Your task to perform on an android device: Open calendar and show me the second week of next month Image 0: 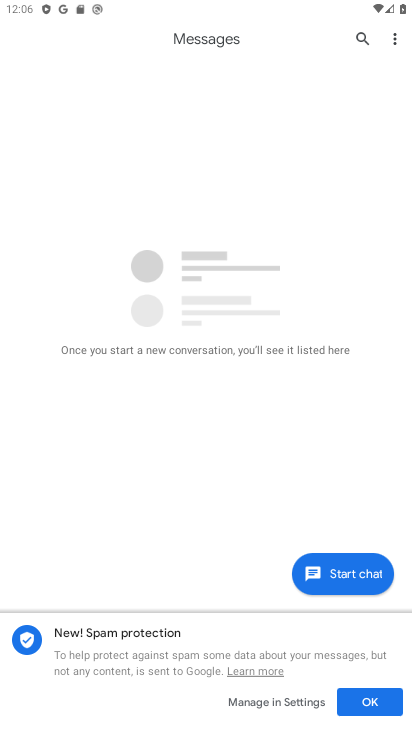
Step 0: drag from (183, 495) to (178, 243)
Your task to perform on an android device: Open calendar and show me the second week of next month Image 1: 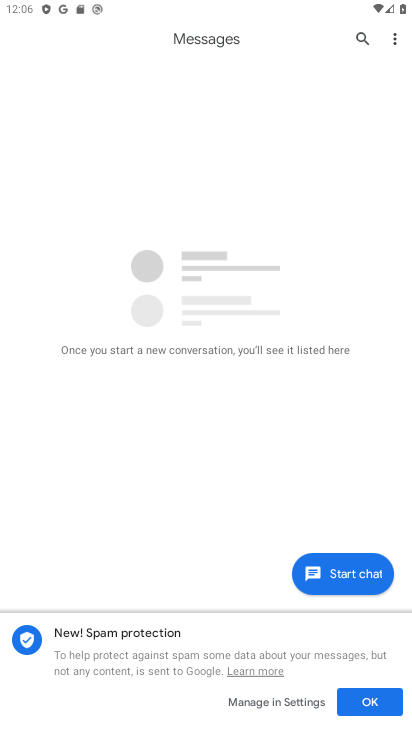
Step 1: press home button
Your task to perform on an android device: Open calendar and show me the second week of next month Image 2: 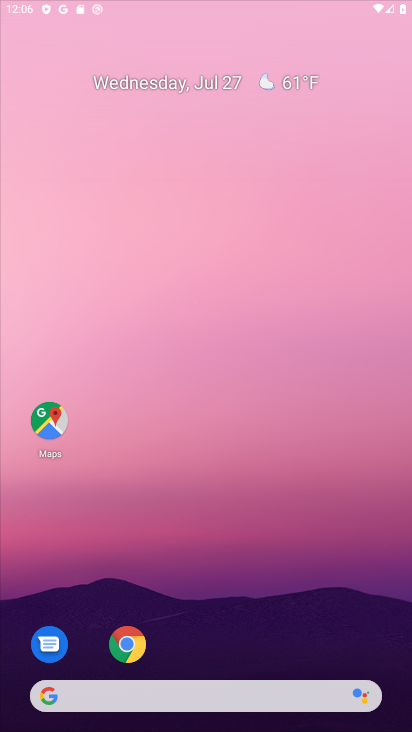
Step 2: click (184, 341)
Your task to perform on an android device: Open calendar and show me the second week of next month Image 3: 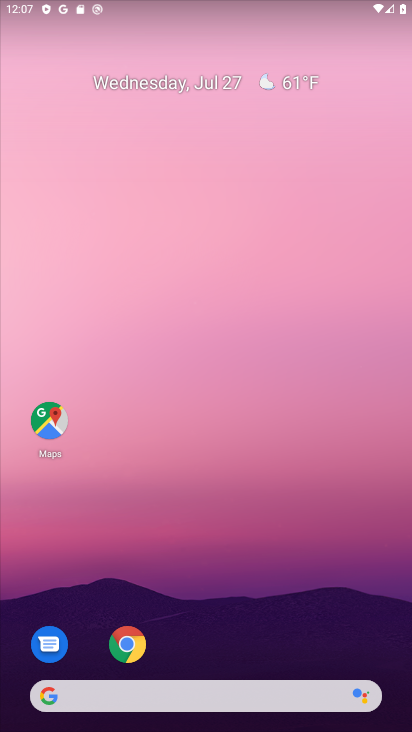
Step 3: drag from (193, 509) to (283, 53)
Your task to perform on an android device: Open calendar and show me the second week of next month Image 4: 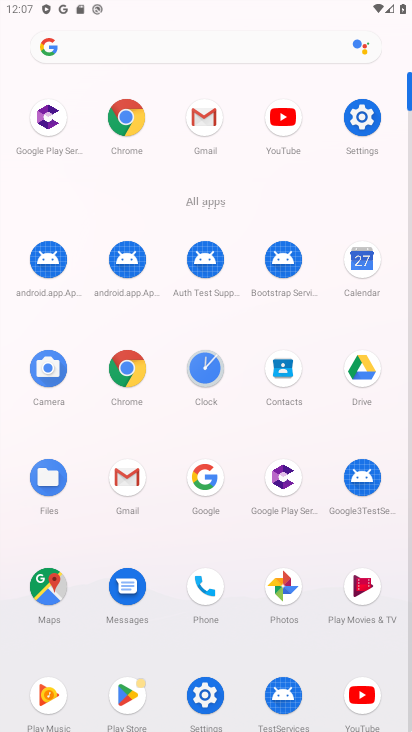
Step 4: click (363, 256)
Your task to perform on an android device: Open calendar and show me the second week of next month Image 5: 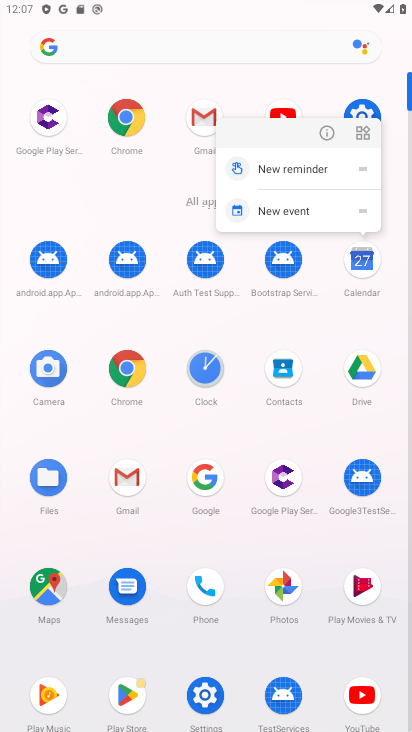
Step 5: click (323, 129)
Your task to perform on an android device: Open calendar and show me the second week of next month Image 6: 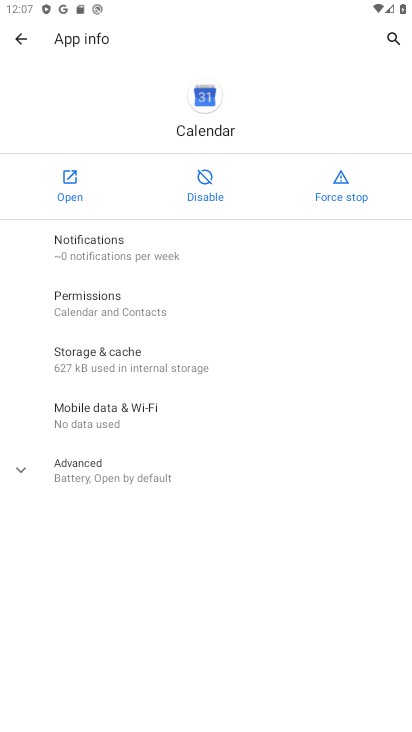
Step 6: click (67, 177)
Your task to perform on an android device: Open calendar and show me the second week of next month Image 7: 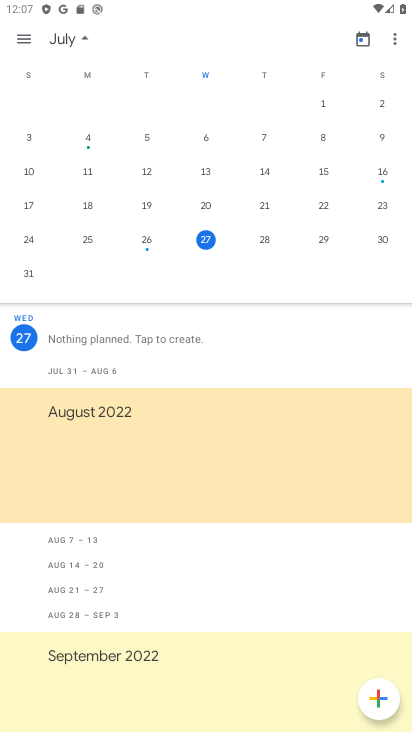
Step 7: drag from (337, 236) to (0, 255)
Your task to perform on an android device: Open calendar and show me the second week of next month Image 8: 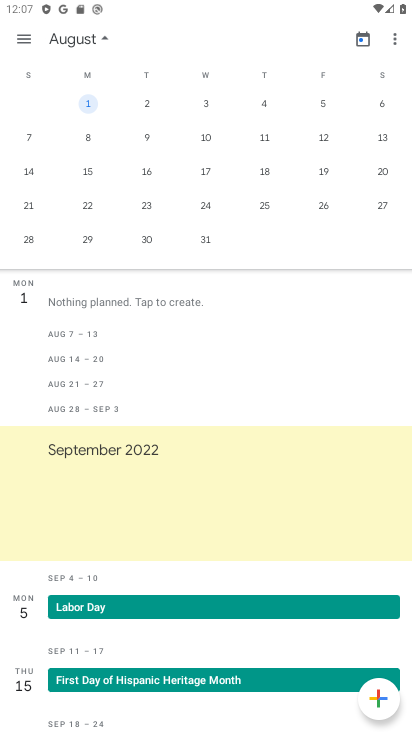
Step 8: click (212, 134)
Your task to perform on an android device: Open calendar and show me the second week of next month Image 9: 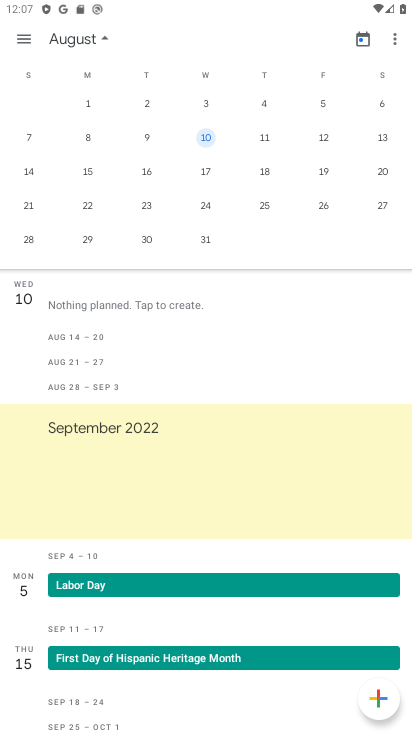
Step 9: task complete